Your task to perform on an android device: Open Google Chrome and open the bookmarks view Image 0: 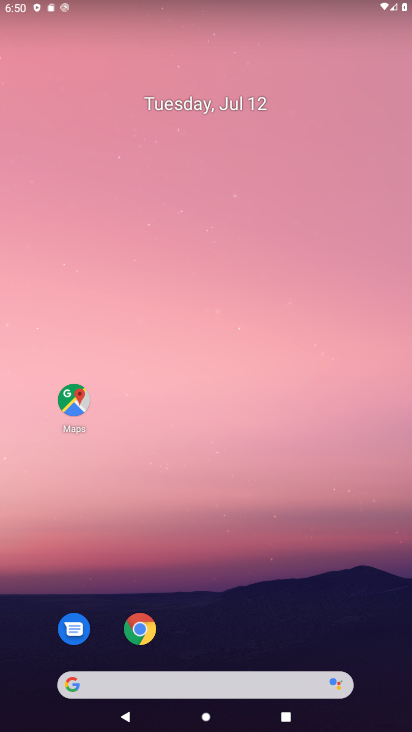
Step 0: drag from (252, 631) to (203, 217)
Your task to perform on an android device: Open Google Chrome and open the bookmarks view Image 1: 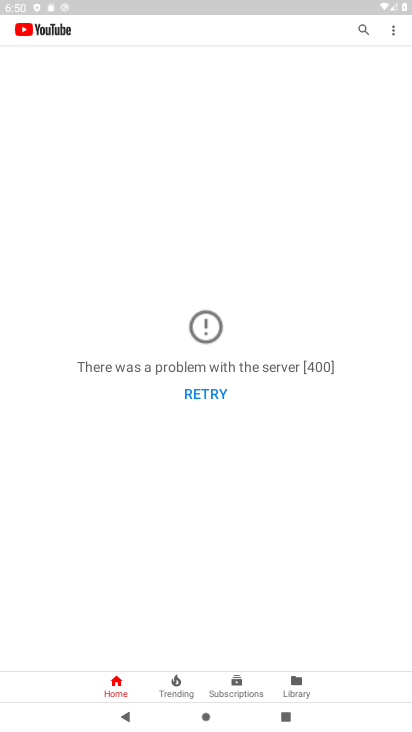
Step 1: press home button
Your task to perform on an android device: Open Google Chrome and open the bookmarks view Image 2: 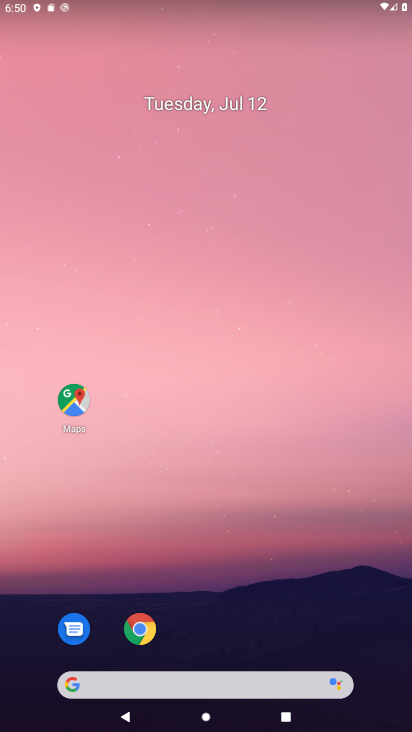
Step 2: drag from (234, 702) to (261, 58)
Your task to perform on an android device: Open Google Chrome and open the bookmarks view Image 3: 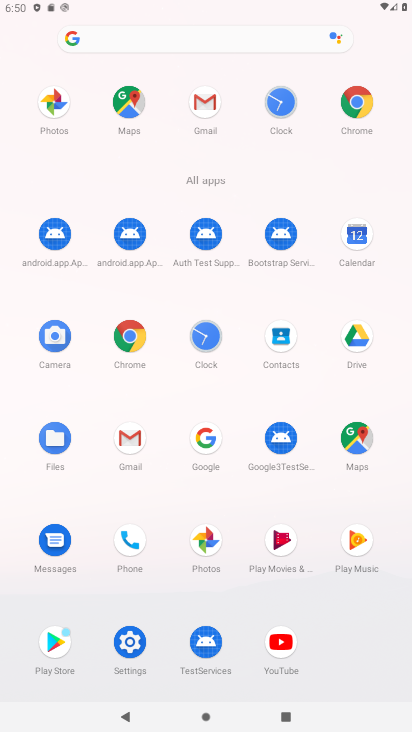
Step 3: click (120, 338)
Your task to perform on an android device: Open Google Chrome and open the bookmarks view Image 4: 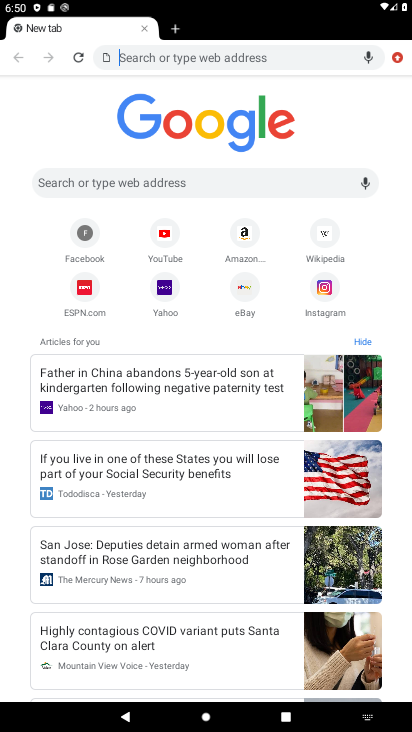
Step 4: click (395, 63)
Your task to perform on an android device: Open Google Chrome and open the bookmarks view Image 5: 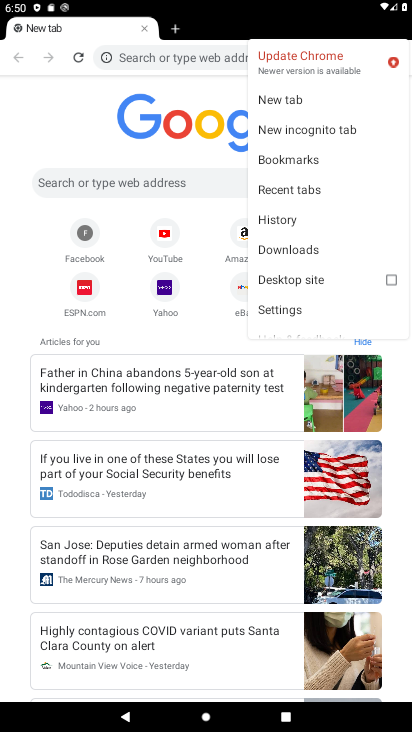
Step 5: click (295, 157)
Your task to perform on an android device: Open Google Chrome and open the bookmarks view Image 6: 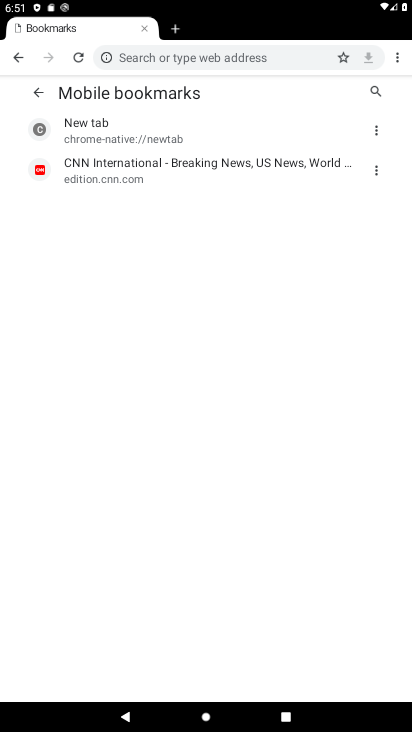
Step 6: task complete